Your task to perform on an android device: Open calendar and show me the first week of next month Image 0: 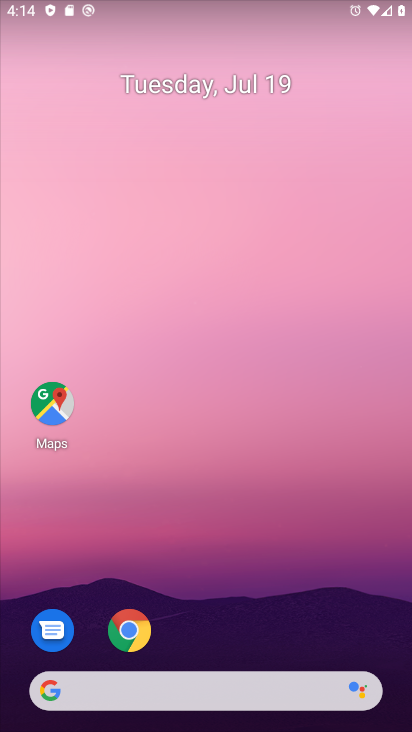
Step 0: drag from (219, 587) to (327, 14)
Your task to perform on an android device: Open calendar and show me the first week of next month Image 1: 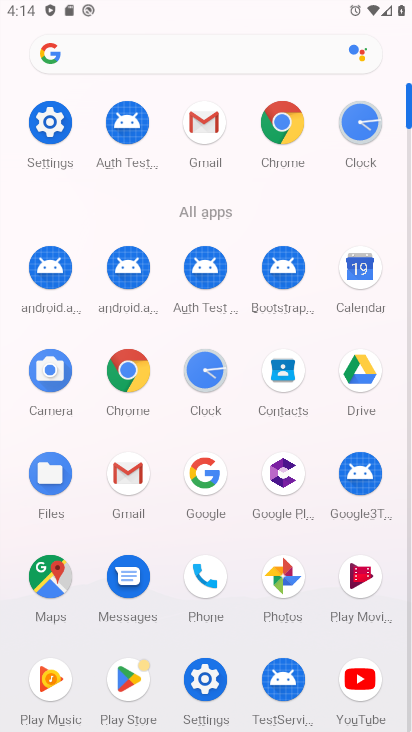
Step 1: click (359, 278)
Your task to perform on an android device: Open calendar and show me the first week of next month Image 2: 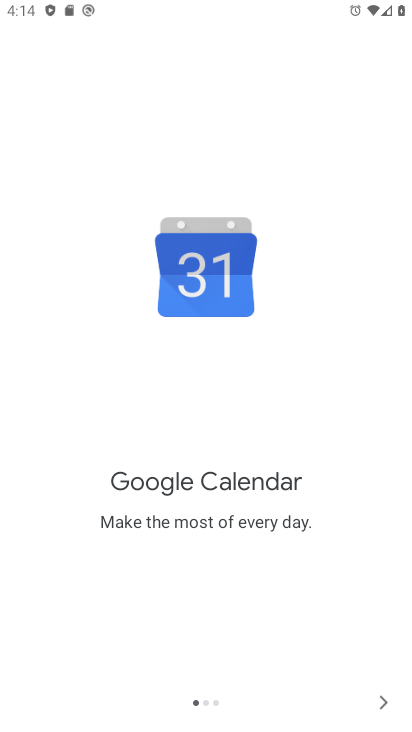
Step 2: click (392, 704)
Your task to perform on an android device: Open calendar and show me the first week of next month Image 3: 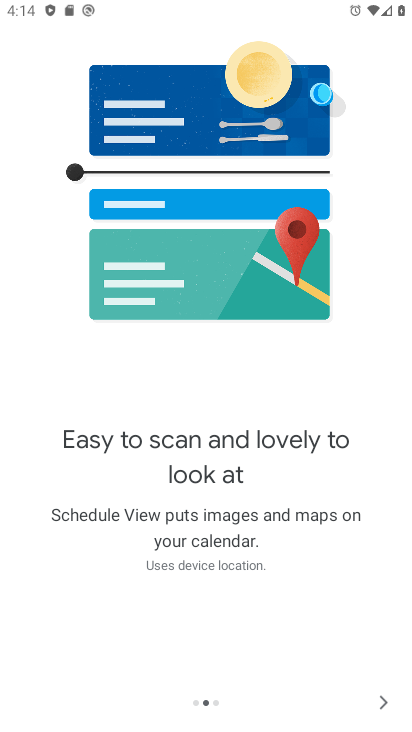
Step 3: click (392, 704)
Your task to perform on an android device: Open calendar and show me the first week of next month Image 4: 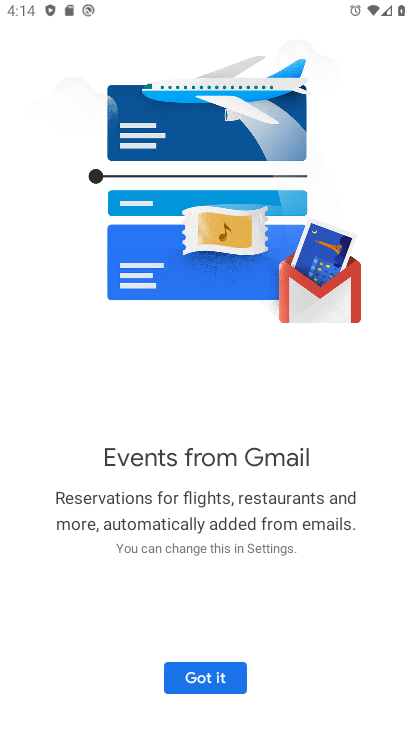
Step 4: click (208, 675)
Your task to perform on an android device: Open calendar and show me the first week of next month Image 5: 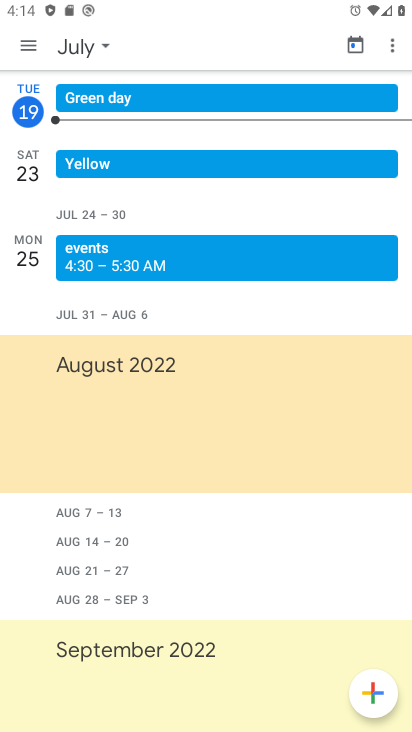
Step 5: click (25, 47)
Your task to perform on an android device: Open calendar and show me the first week of next month Image 6: 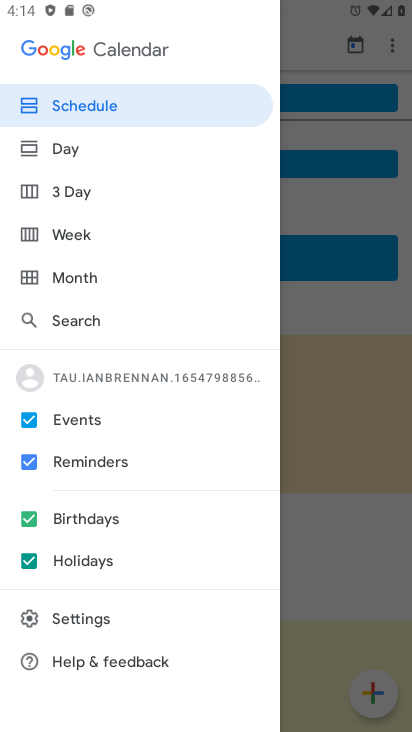
Step 6: click (78, 235)
Your task to perform on an android device: Open calendar and show me the first week of next month Image 7: 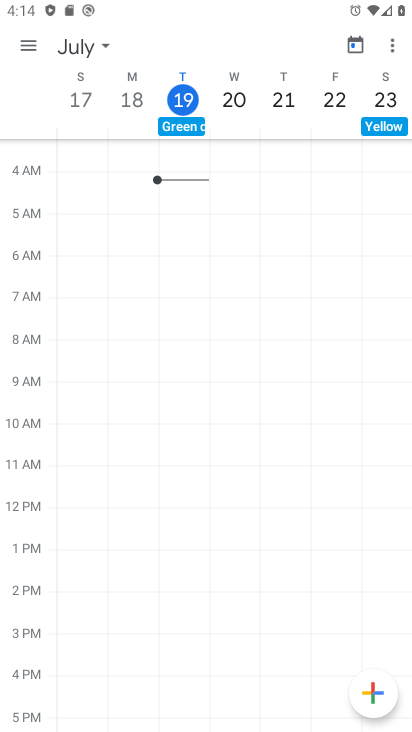
Step 7: click (78, 45)
Your task to perform on an android device: Open calendar and show me the first week of next month Image 8: 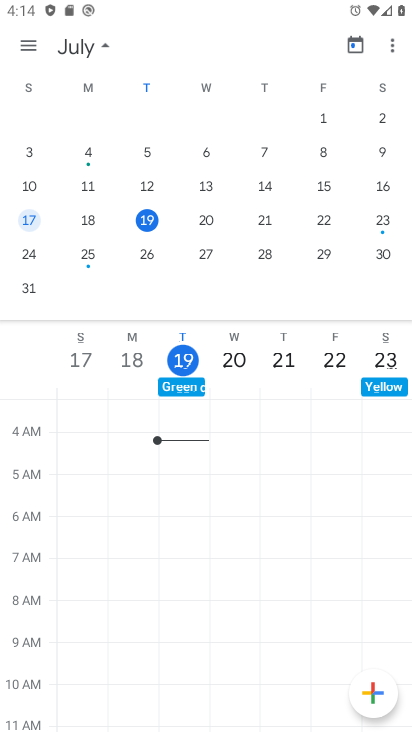
Step 8: task complete